Your task to perform on an android device: Go to Maps Image 0: 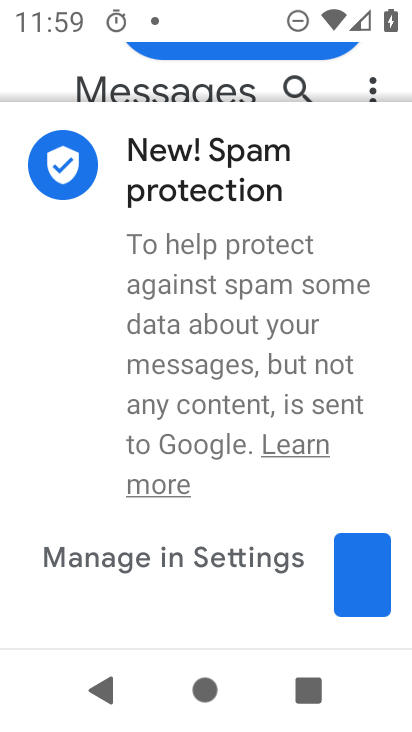
Step 0: press back button
Your task to perform on an android device: Go to Maps Image 1: 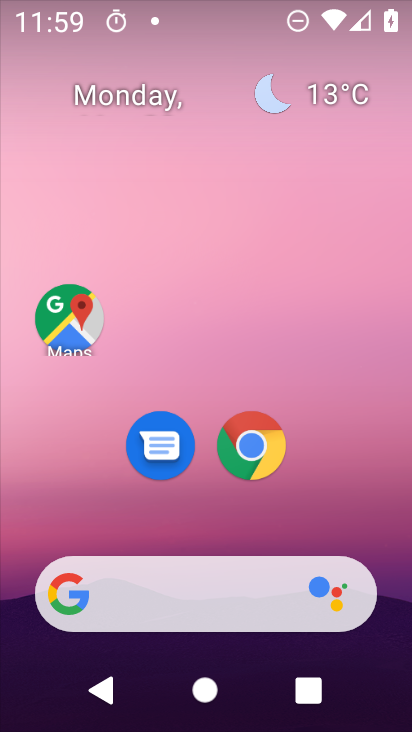
Step 1: click (48, 311)
Your task to perform on an android device: Go to Maps Image 2: 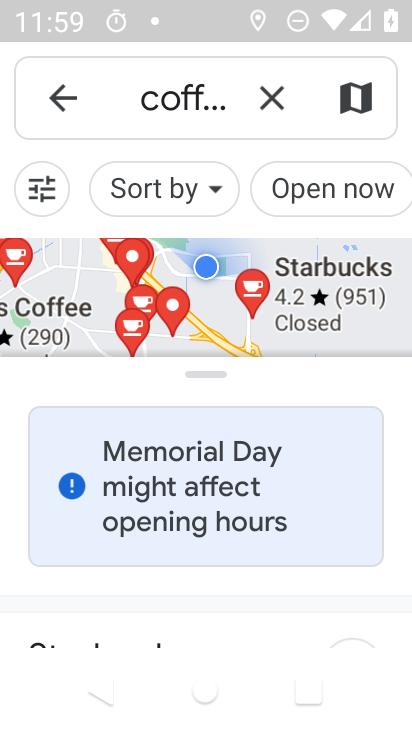
Step 2: task complete